Your task to perform on an android device: Play the last video I watched on Youtube Image 0: 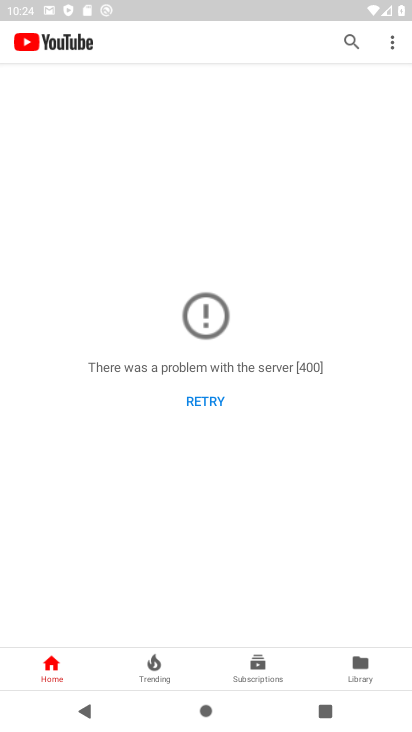
Step 0: click (369, 672)
Your task to perform on an android device: Play the last video I watched on Youtube Image 1: 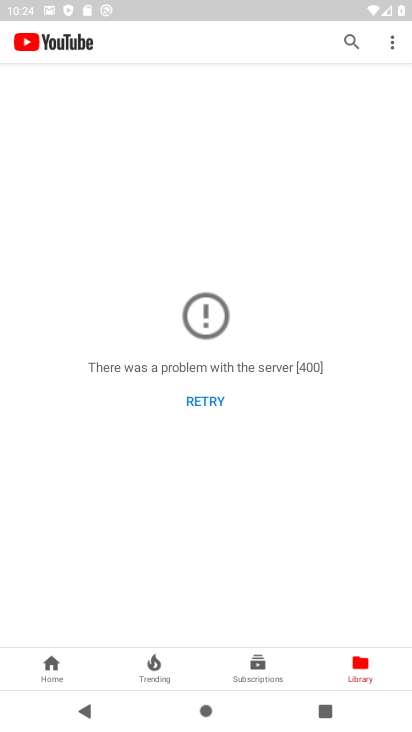
Step 1: click (198, 402)
Your task to perform on an android device: Play the last video I watched on Youtube Image 2: 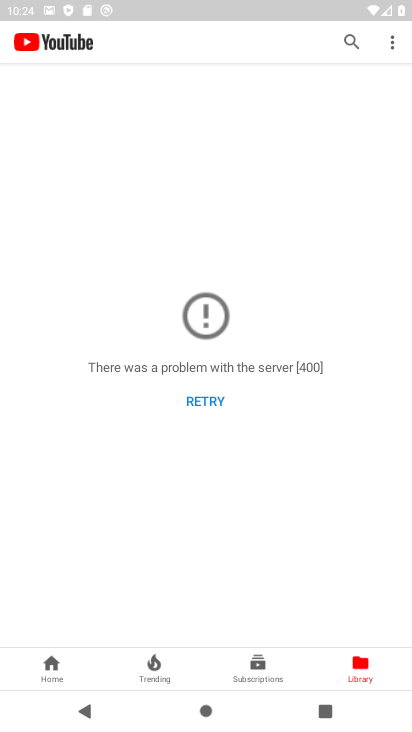
Step 2: click (52, 672)
Your task to perform on an android device: Play the last video I watched on Youtube Image 3: 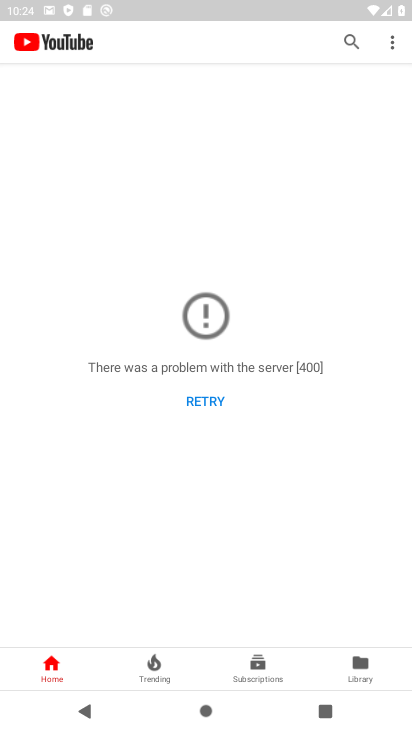
Step 3: click (155, 677)
Your task to perform on an android device: Play the last video I watched on Youtube Image 4: 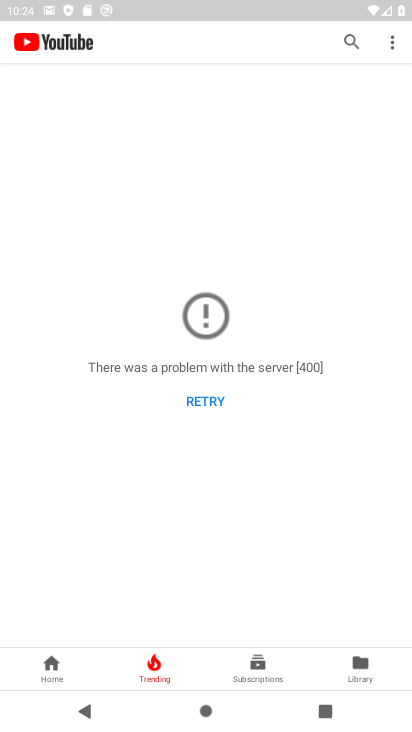
Step 4: click (252, 660)
Your task to perform on an android device: Play the last video I watched on Youtube Image 5: 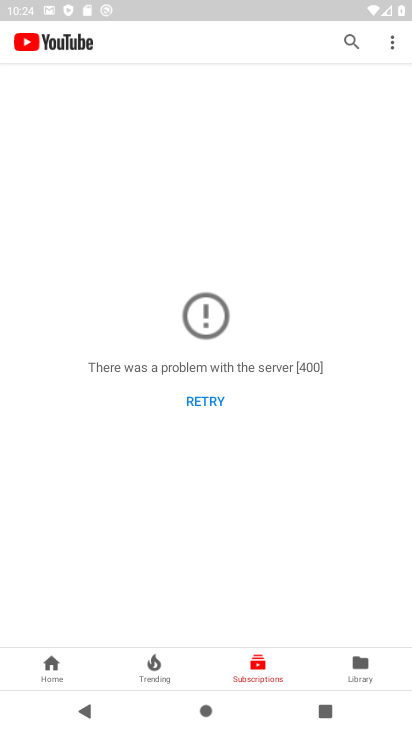
Step 5: task complete